Your task to perform on an android device: change alarm snooze length Image 0: 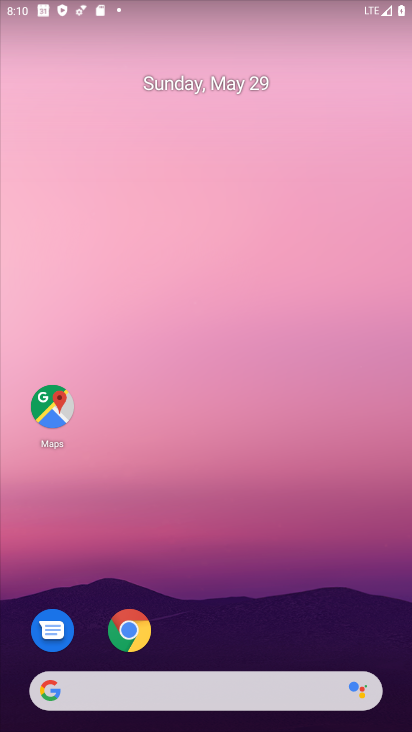
Step 0: drag from (213, 657) to (165, 48)
Your task to perform on an android device: change alarm snooze length Image 1: 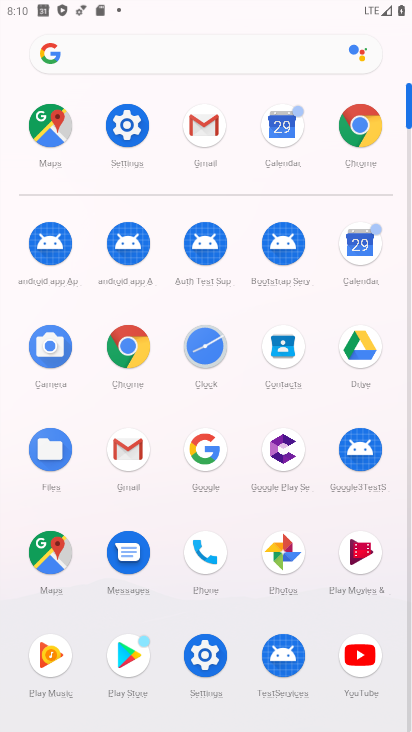
Step 1: click (203, 353)
Your task to perform on an android device: change alarm snooze length Image 2: 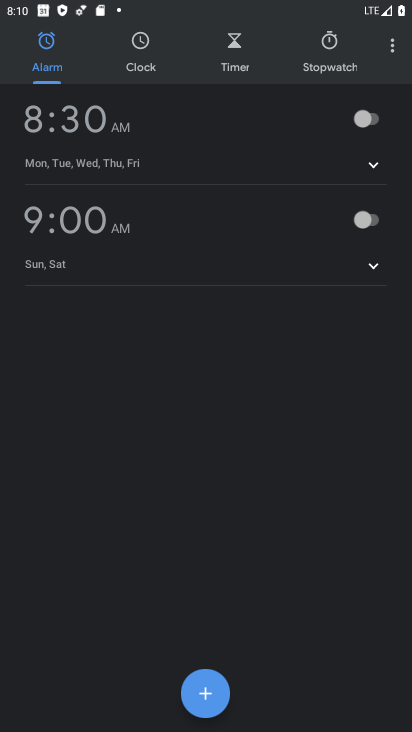
Step 2: click (391, 53)
Your task to perform on an android device: change alarm snooze length Image 3: 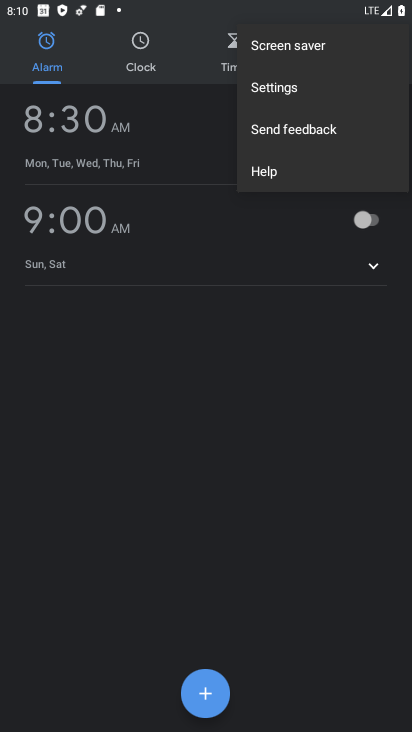
Step 3: click (297, 88)
Your task to perform on an android device: change alarm snooze length Image 4: 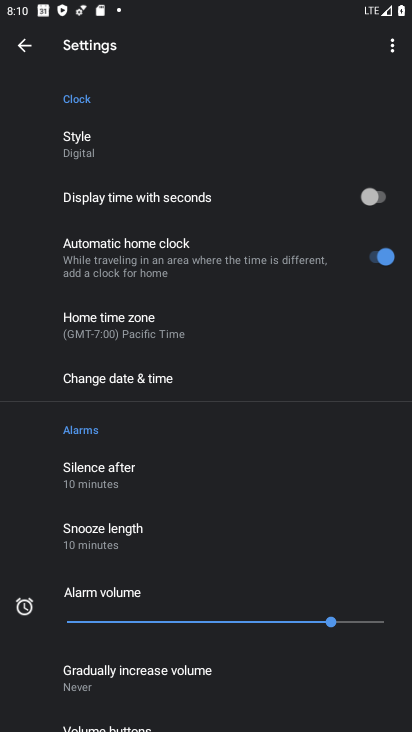
Step 4: click (94, 524)
Your task to perform on an android device: change alarm snooze length Image 5: 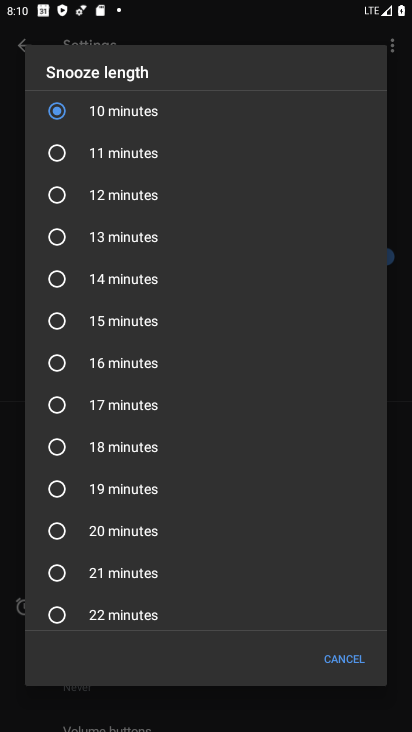
Step 5: click (72, 157)
Your task to perform on an android device: change alarm snooze length Image 6: 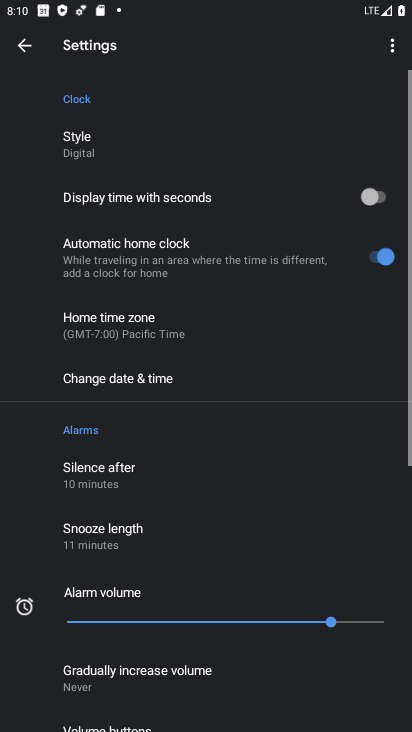
Step 6: task complete